Your task to perform on an android device: Play the last video I watched on Youtube Image 0: 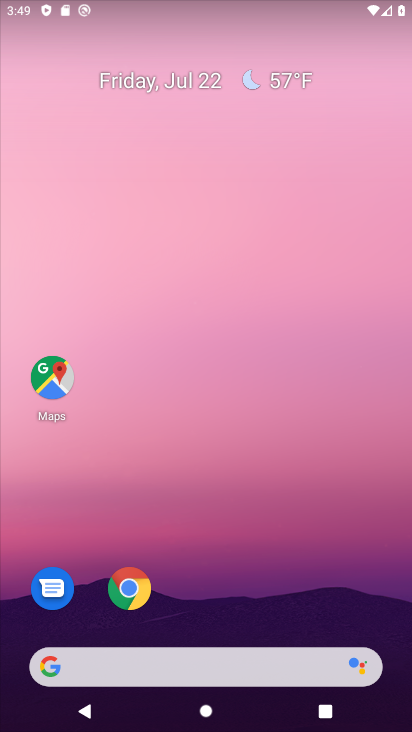
Step 0: drag from (216, 631) to (151, 96)
Your task to perform on an android device: Play the last video I watched on Youtube Image 1: 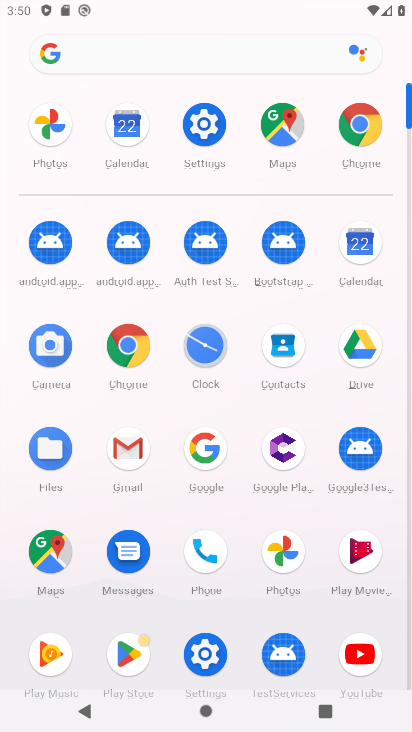
Step 1: click (364, 670)
Your task to perform on an android device: Play the last video I watched on Youtube Image 2: 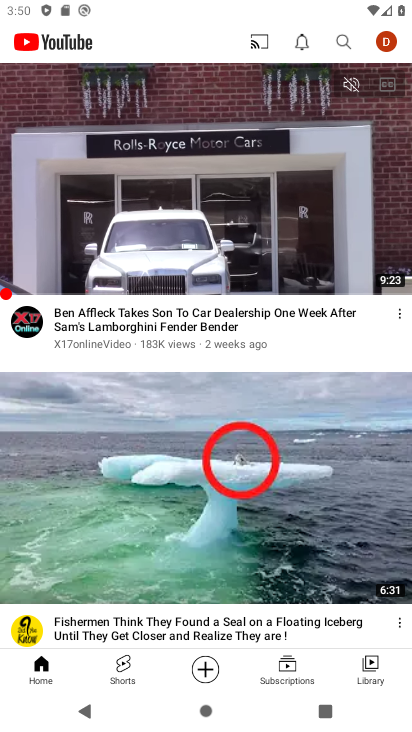
Step 2: click (122, 672)
Your task to perform on an android device: Play the last video I watched on Youtube Image 3: 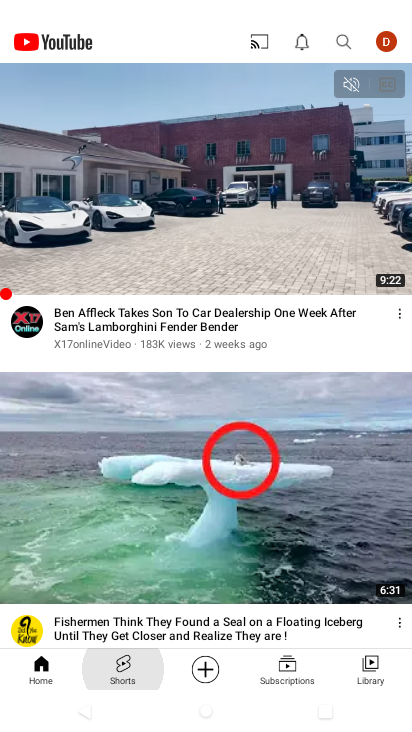
Step 3: click (347, 47)
Your task to perform on an android device: Play the last video I watched on Youtube Image 4: 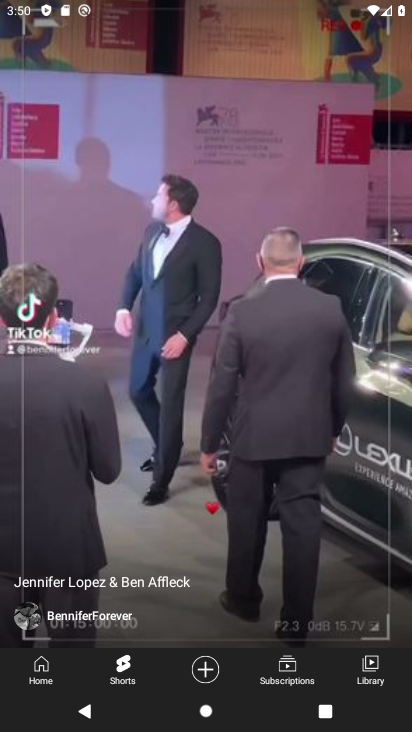
Step 4: click (43, 671)
Your task to perform on an android device: Play the last video I watched on Youtube Image 5: 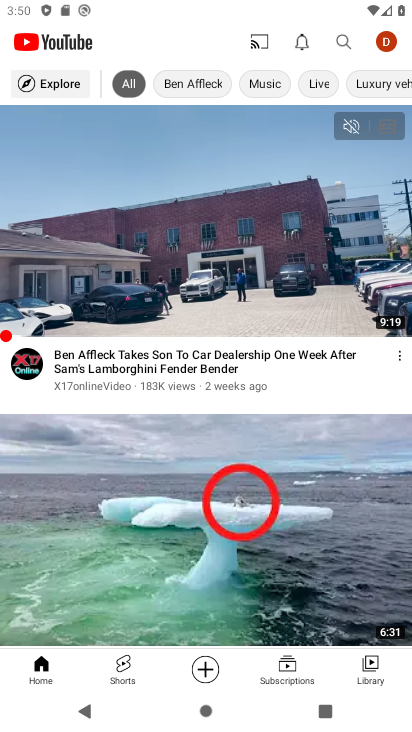
Step 5: task complete